Your task to perform on an android device: turn smart compose on in the gmail app Image 0: 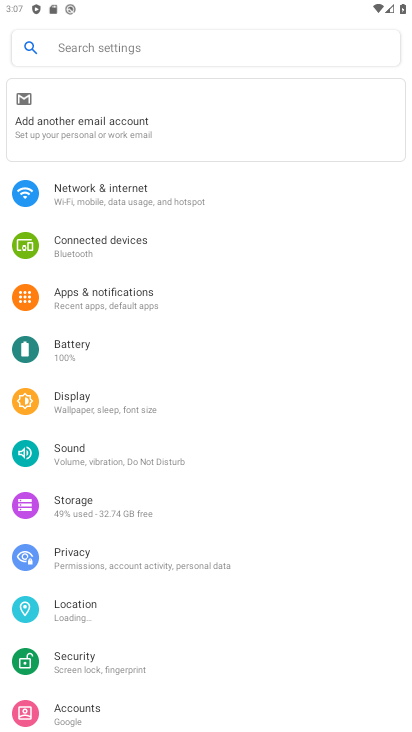
Step 0: drag from (159, 666) to (294, 63)
Your task to perform on an android device: turn smart compose on in the gmail app Image 1: 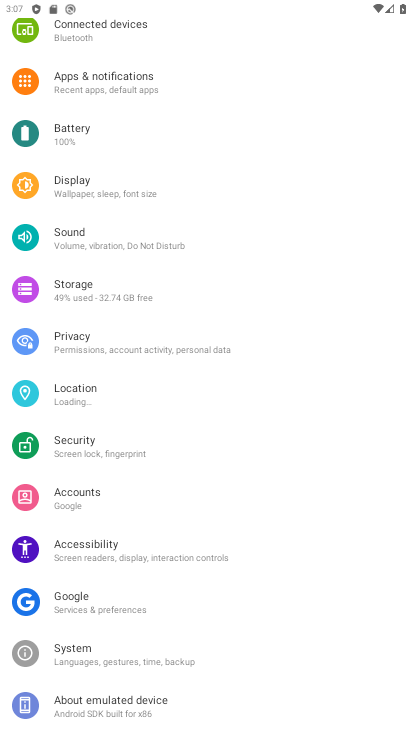
Step 1: drag from (187, 631) to (194, 466)
Your task to perform on an android device: turn smart compose on in the gmail app Image 2: 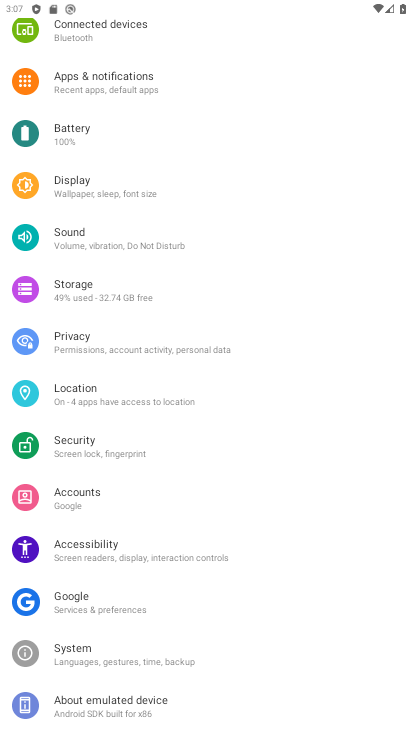
Step 2: drag from (170, 566) to (252, 231)
Your task to perform on an android device: turn smart compose on in the gmail app Image 3: 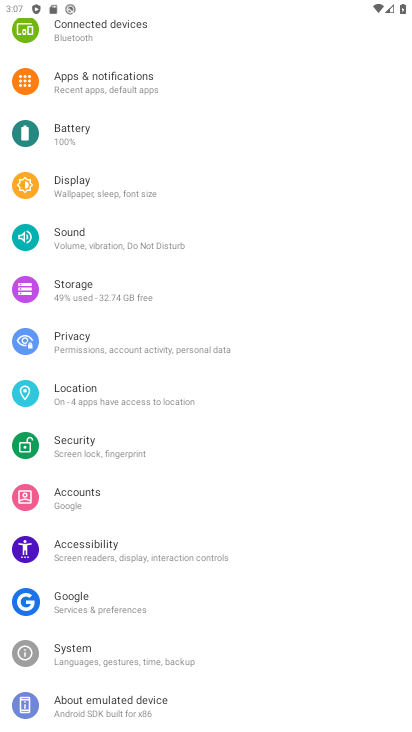
Step 3: press home button
Your task to perform on an android device: turn smart compose on in the gmail app Image 4: 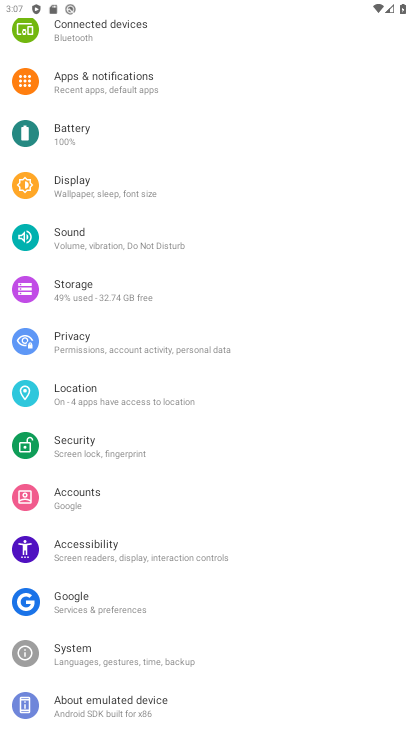
Step 4: drag from (207, 574) to (270, 200)
Your task to perform on an android device: turn smart compose on in the gmail app Image 5: 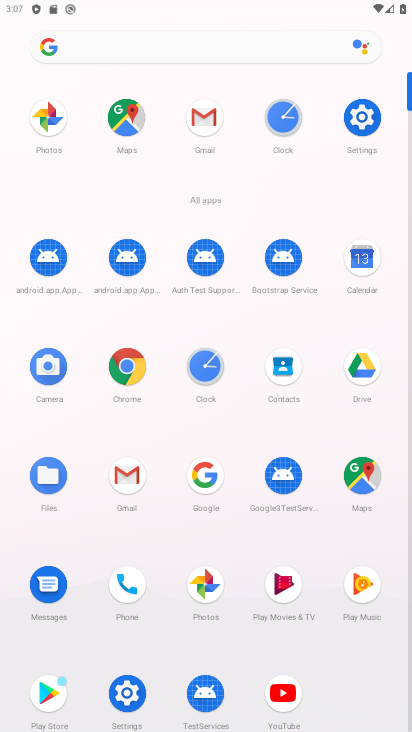
Step 5: click (216, 111)
Your task to perform on an android device: turn smart compose on in the gmail app Image 6: 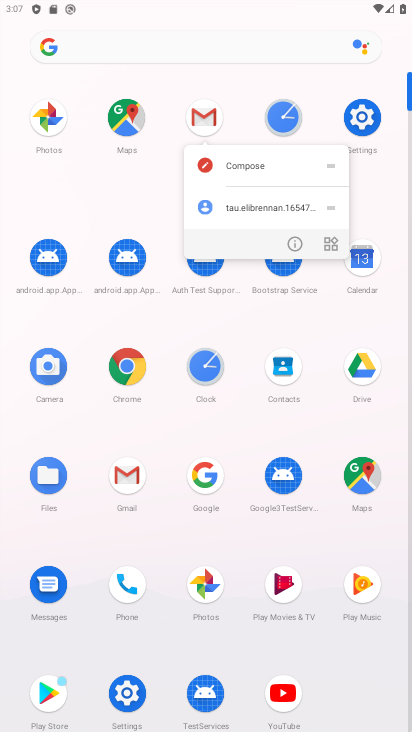
Step 6: click (290, 244)
Your task to perform on an android device: turn smart compose on in the gmail app Image 7: 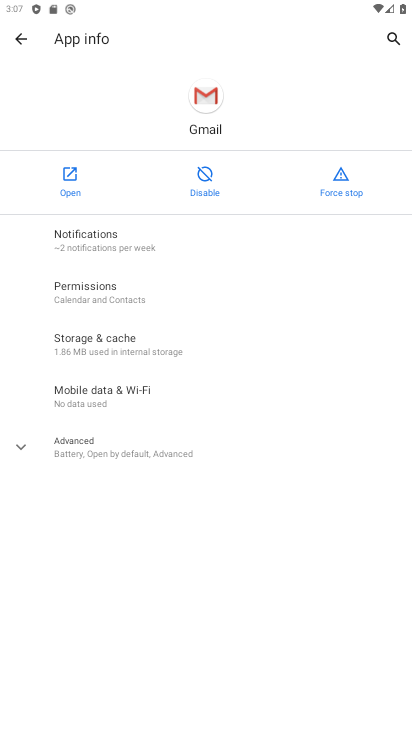
Step 7: click (50, 163)
Your task to perform on an android device: turn smart compose on in the gmail app Image 8: 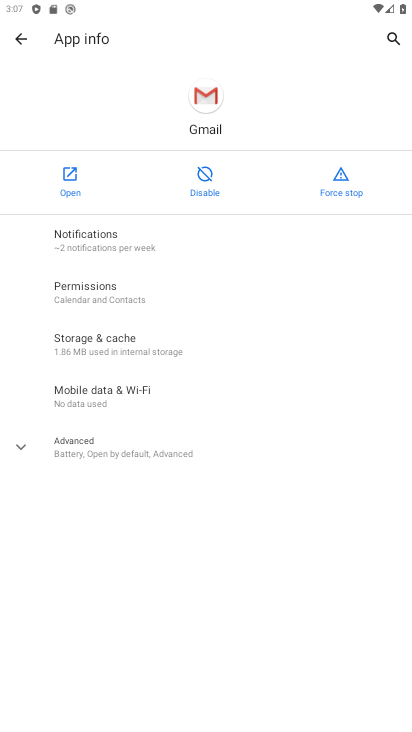
Step 8: click (50, 163)
Your task to perform on an android device: turn smart compose on in the gmail app Image 9: 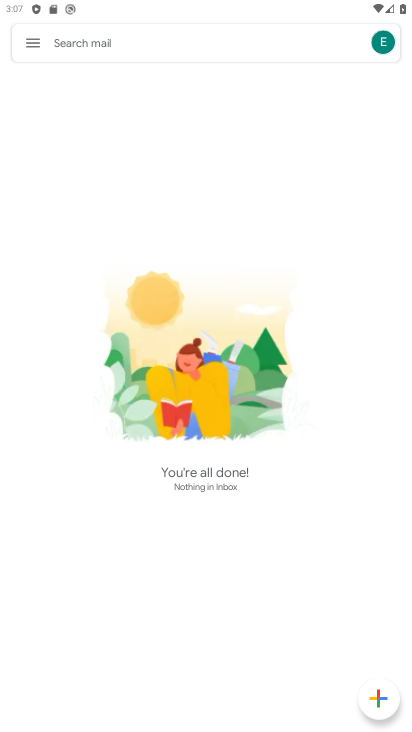
Step 9: click (18, 48)
Your task to perform on an android device: turn smart compose on in the gmail app Image 10: 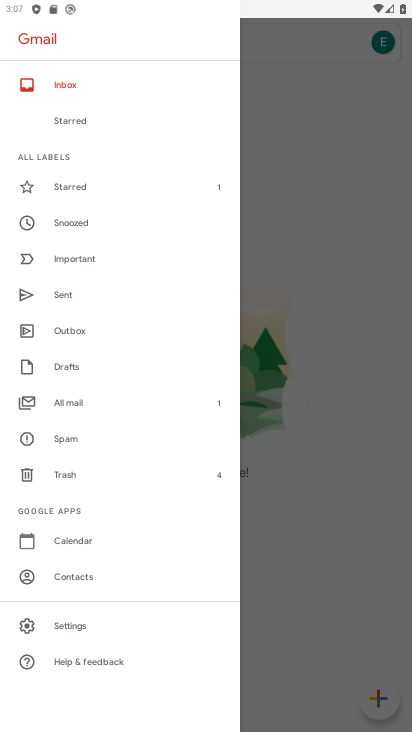
Step 10: click (70, 620)
Your task to perform on an android device: turn smart compose on in the gmail app Image 11: 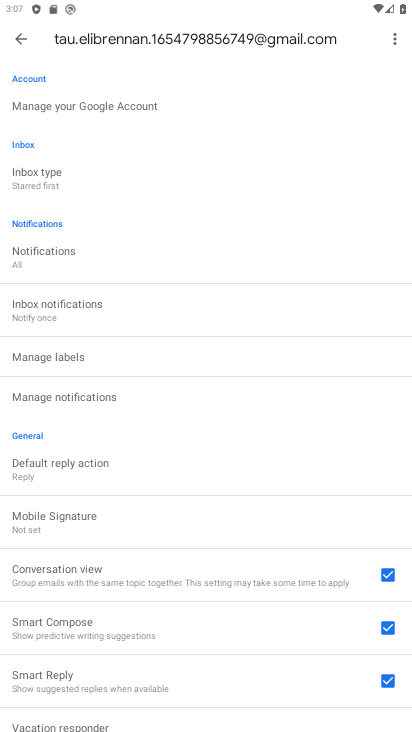
Step 11: task complete